Your task to perform on an android device: Open wifi settings Image 0: 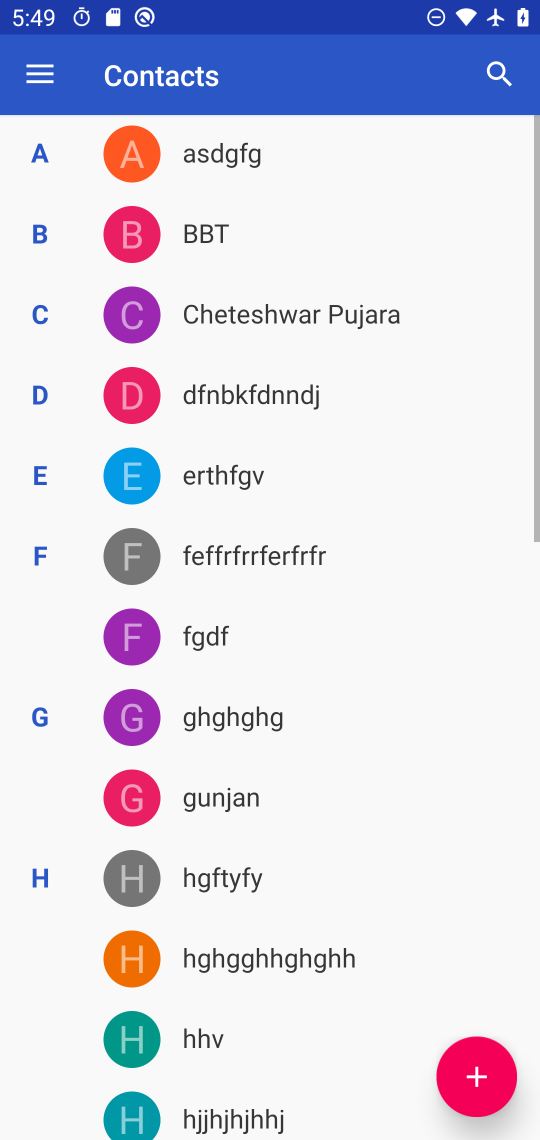
Step 0: press home button
Your task to perform on an android device: Open wifi settings Image 1: 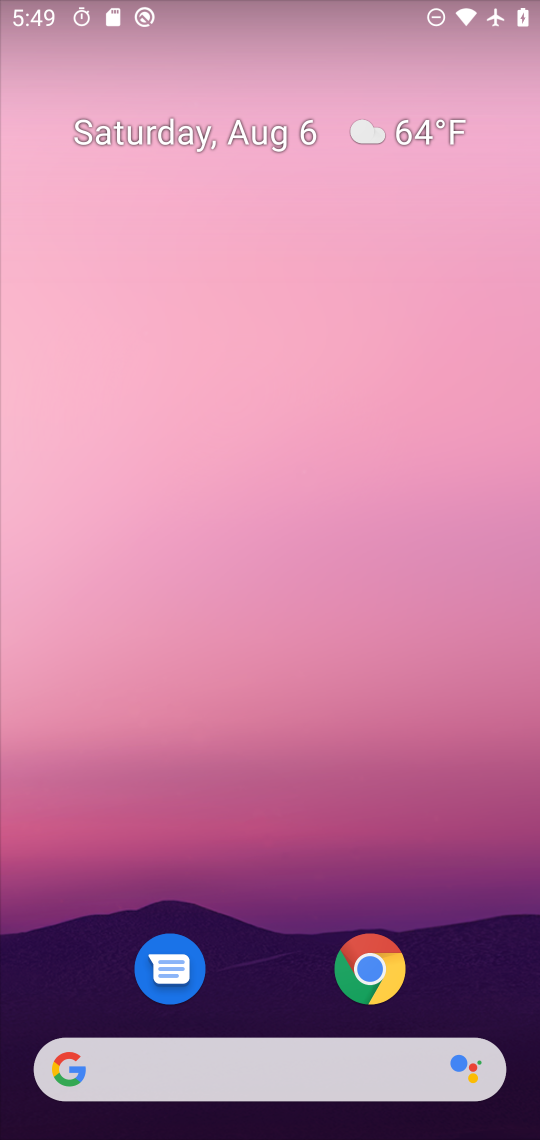
Step 1: drag from (264, 1009) to (0, 147)
Your task to perform on an android device: Open wifi settings Image 2: 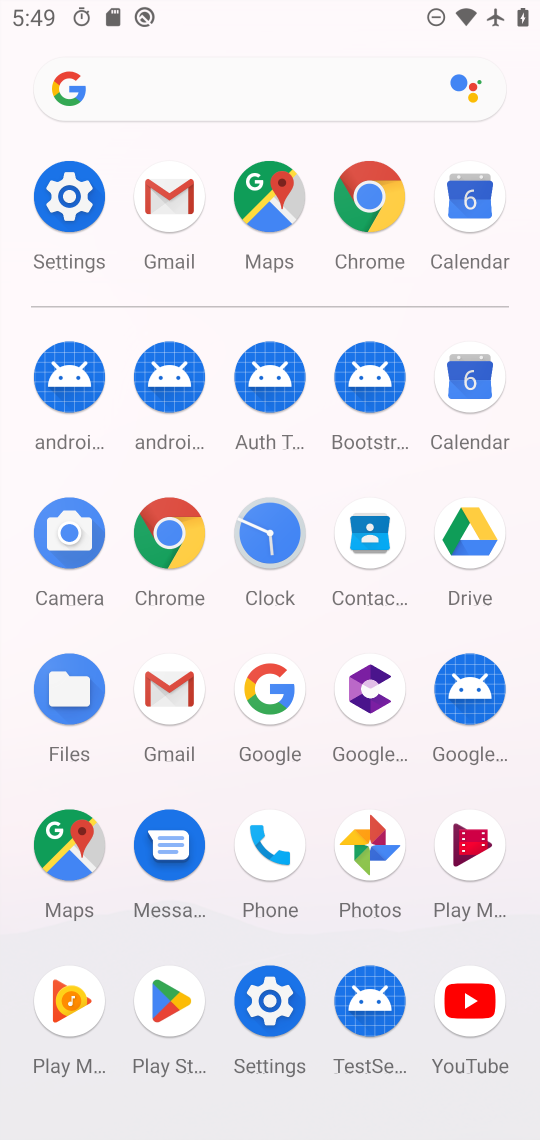
Step 2: click (42, 200)
Your task to perform on an android device: Open wifi settings Image 3: 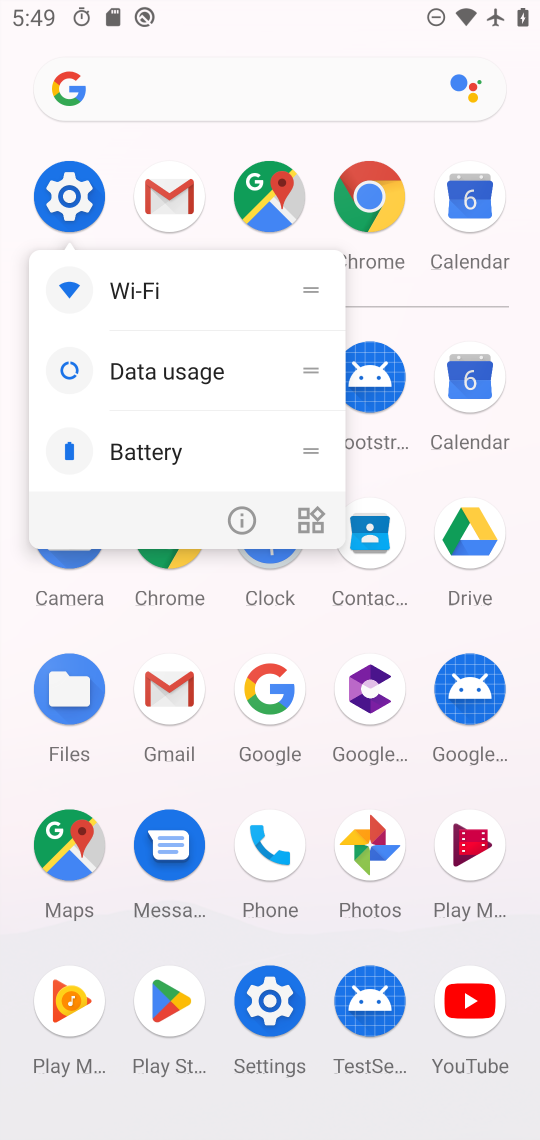
Step 3: click (77, 215)
Your task to perform on an android device: Open wifi settings Image 4: 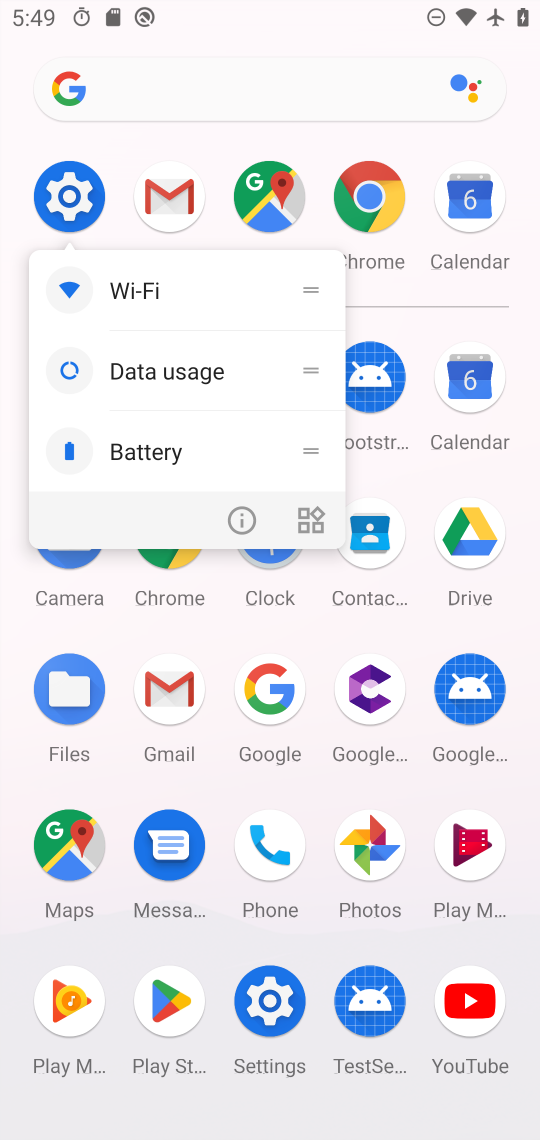
Step 4: click (77, 215)
Your task to perform on an android device: Open wifi settings Image 5: 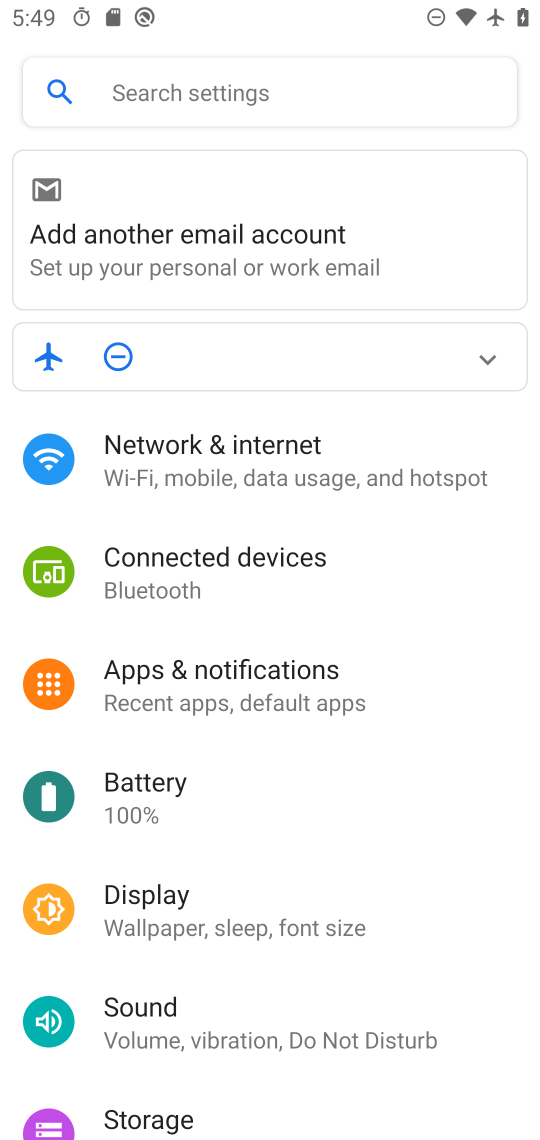
Step 5: click (264, 458)
Your task to perform on an android device: Open wifi settings Image 6: 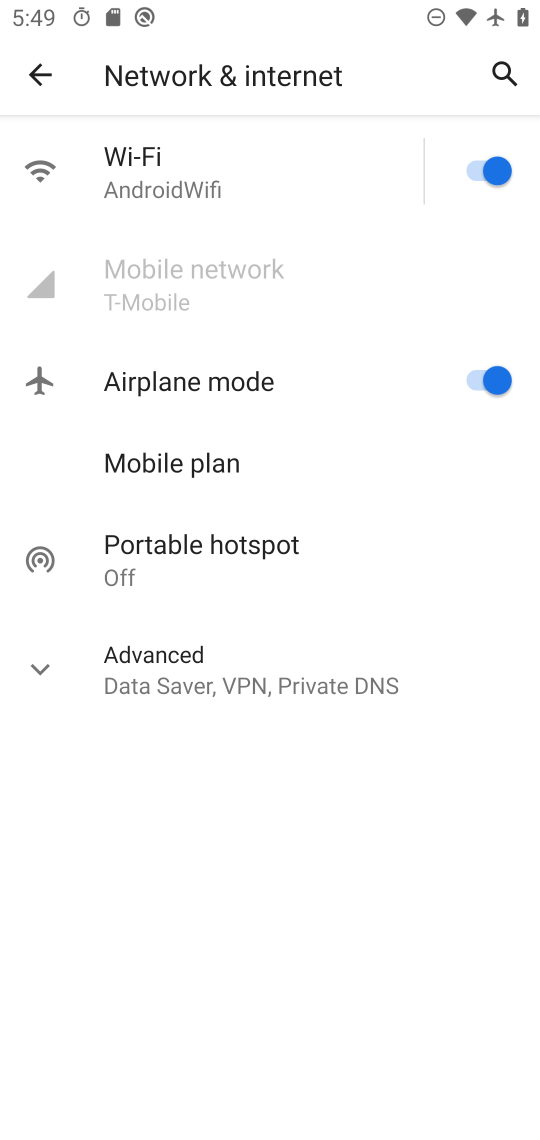
Step 6: click (124, 144)
Your task to perform on an android device: Open wifi settings Image 7: 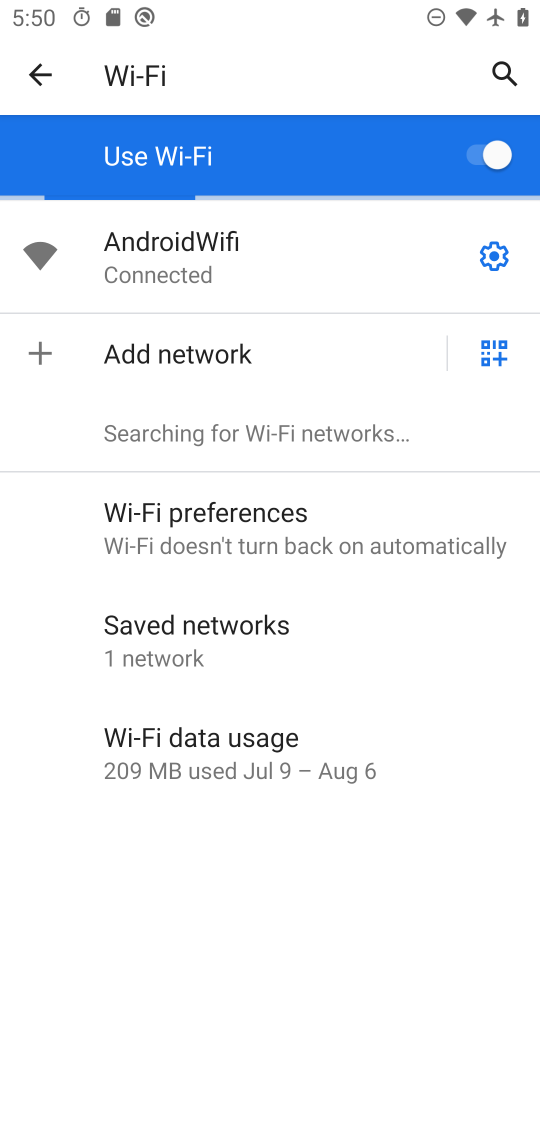
Step 7: click (178, 258)
Your task to perform on an android device: Open wifi settings Image 8: 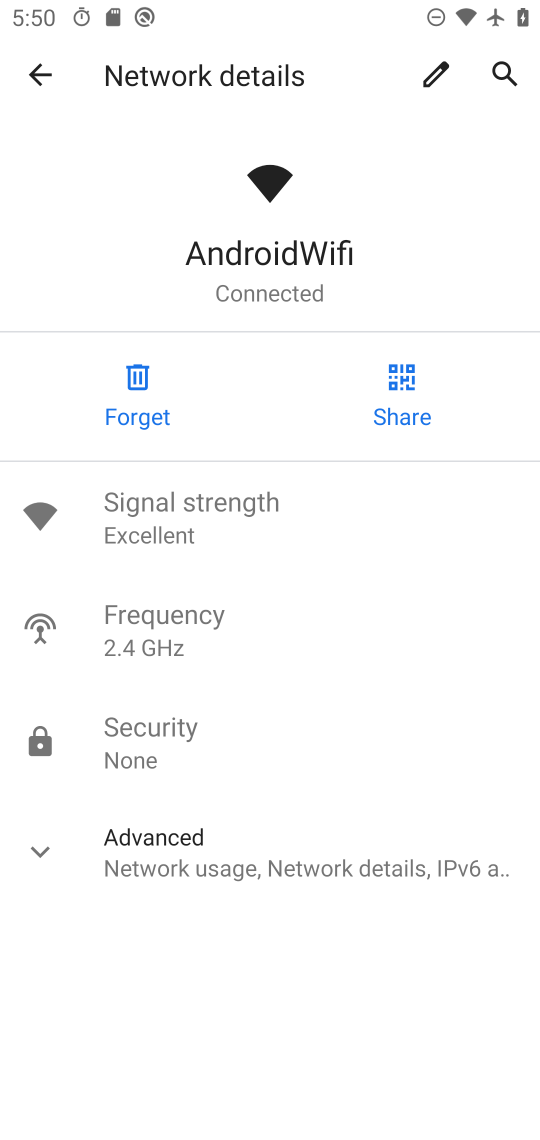
Step 8: task complete